Your task to perform on an android device: see sites visited before in the chrome app Image 0: 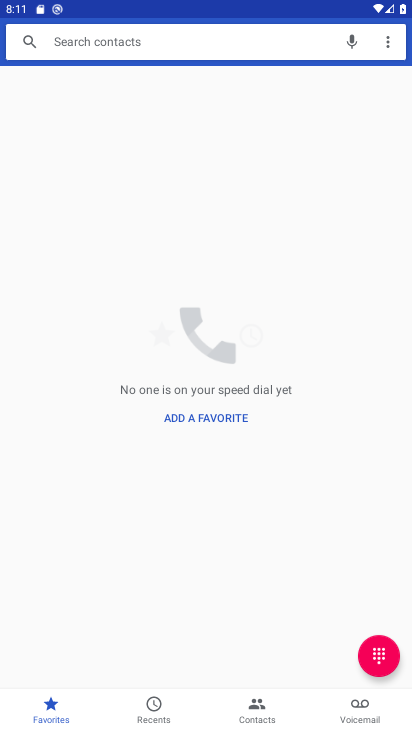
Step 0: press home button
Your task to perform on an android device: see sites visited before in the chrome app Image 1: 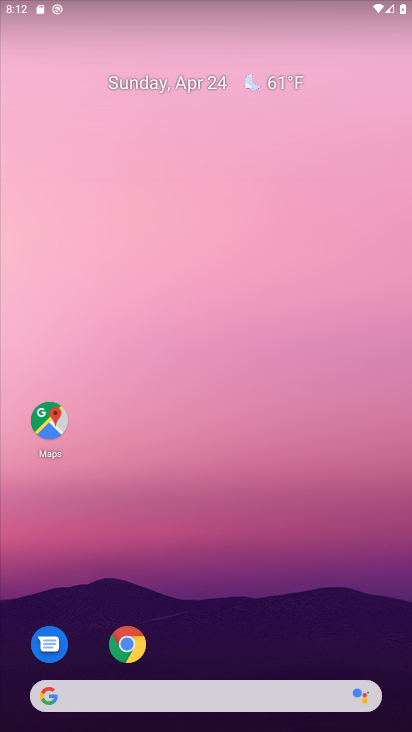
Step 1: click (127, 642)
Your task to perform on an android device: see sites visited before in the chrome app Image 2: 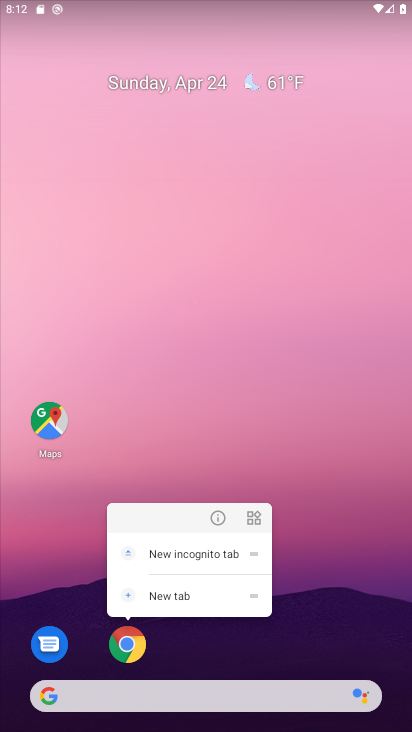
Step 2: click (297, 632)
Your task to perform on an android device: see sites visited before in the chrome app Image 3: 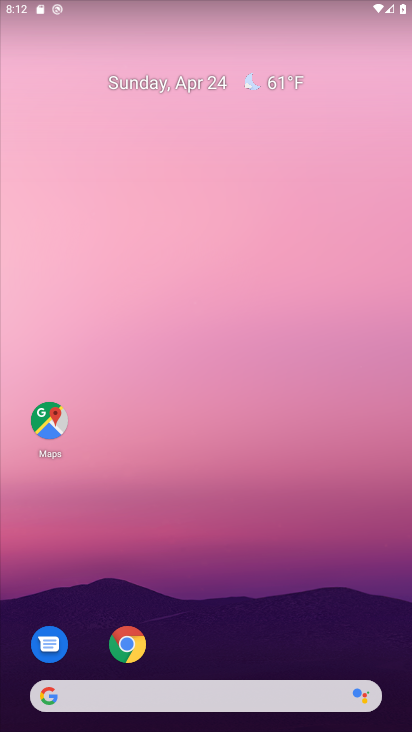
Step 3: drag from (281, 651) to (312, 63)
Your task to perform on an android device: see sites visited before in the chrome app Image 4: 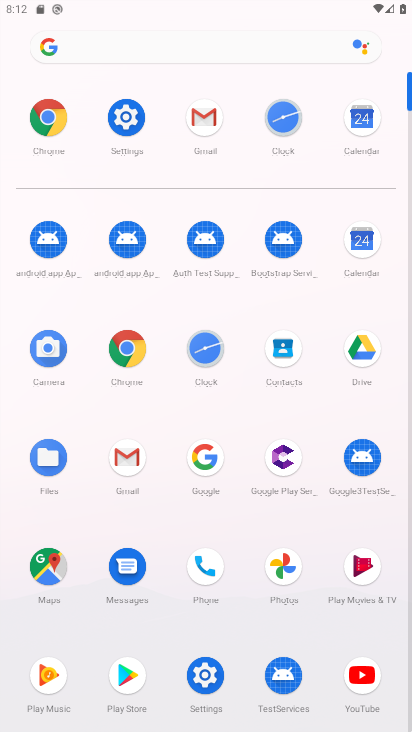
Step 4: click (123, 344)
Your task to perform on an android device: see sites visited before in the chrome app Image 5: 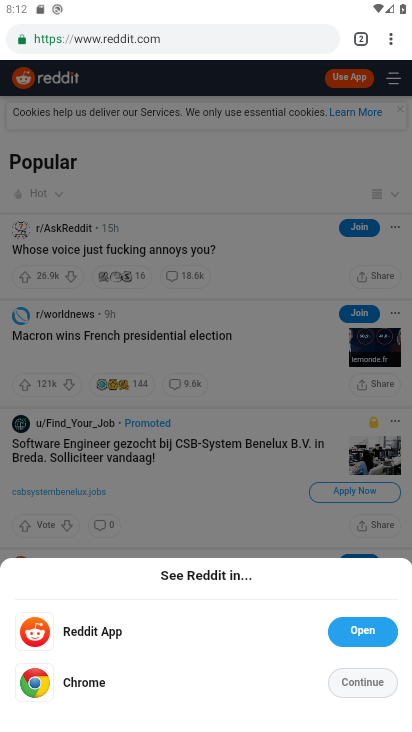
Step 5: click (356, 680)
Your task to perform on an android device: see sites visited before in the chrome app Image 6: 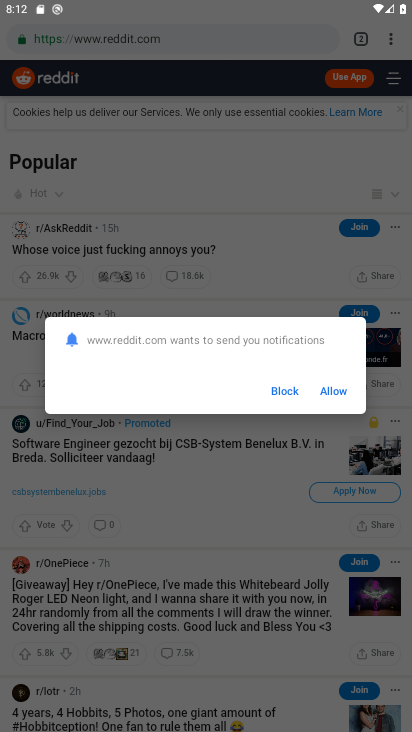
Step 6: click (284, 385)
Your task to perform on an android device: see sites visited before in the chrome app Image 7: 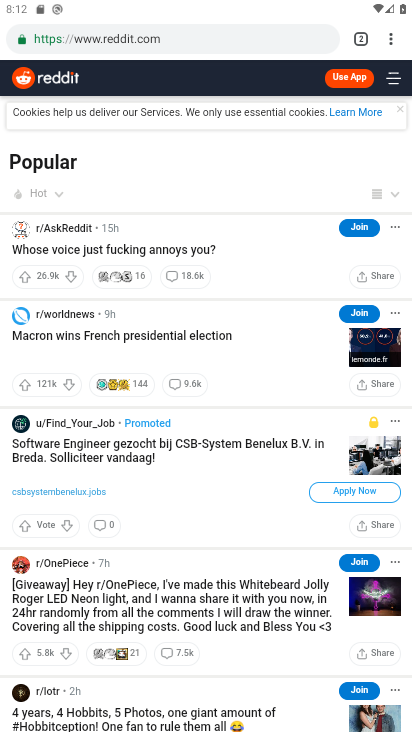
Step 7: click (389, 39)
Your task to perform on an android device: see sites visited before in the chrome app Image 8: 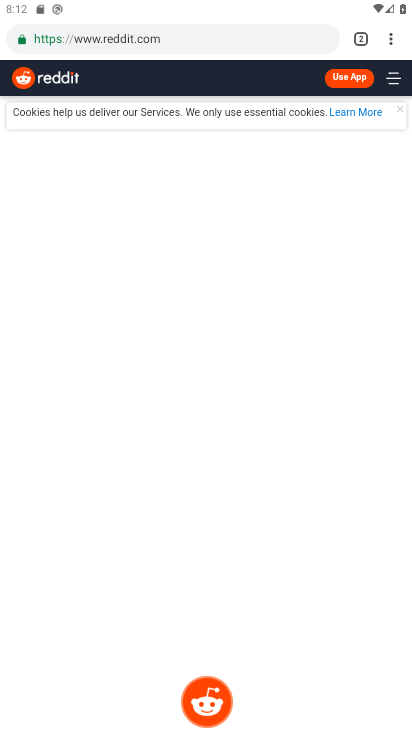
Step 8: click (389, 39)
Your task to perform on an android device: see sites visited before in the chrome app Image 9: 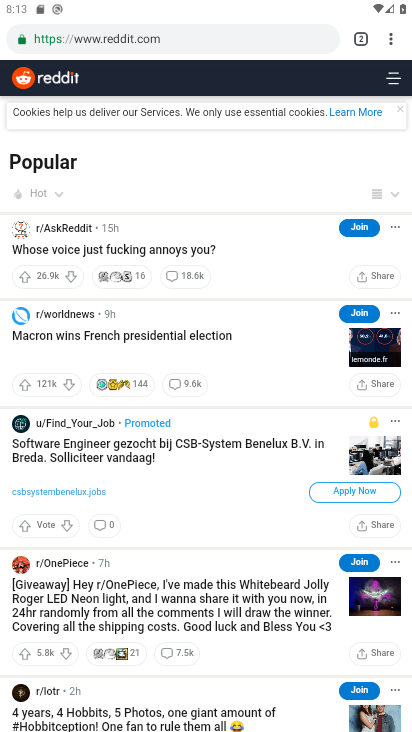
Step 9: click (389, 30)
Your task to perform on an android device: see sites visited before in the chrome app Image 10: 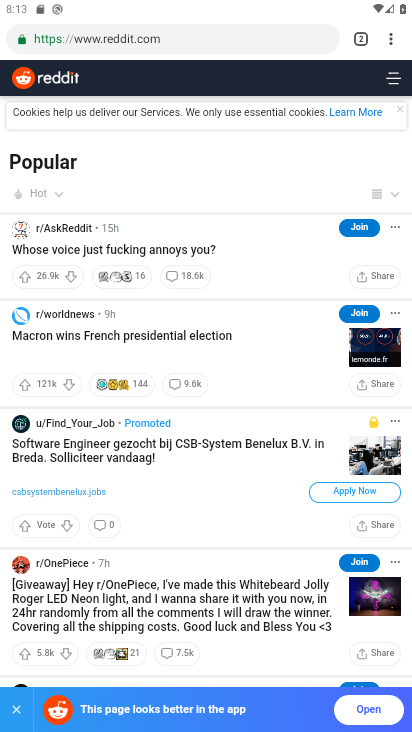
Step 10: click (389, 40)
Your task to perform on an android device: see sites visited before in the chrome app Image 11: 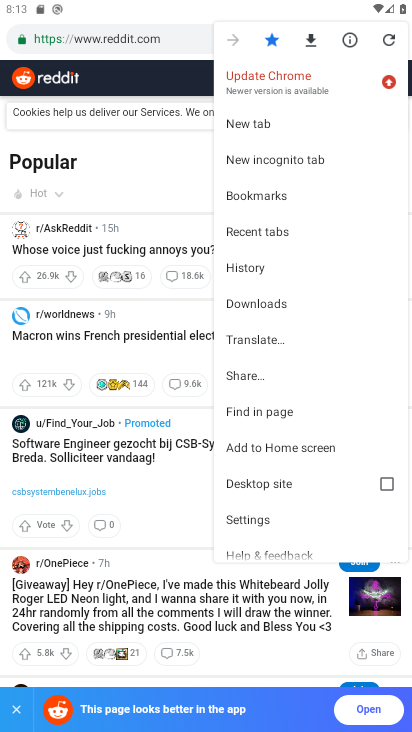
Step 11: click (267, 271)
Your task to perform on an android device: see sites visited before in the chrome app Image 12: 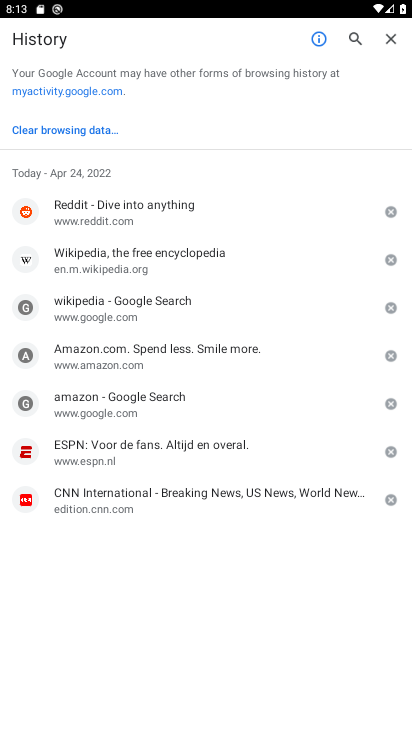
Step 12: task complete